Your task to perform on an android device: Open the calendar and show me this week's events? Image 0: 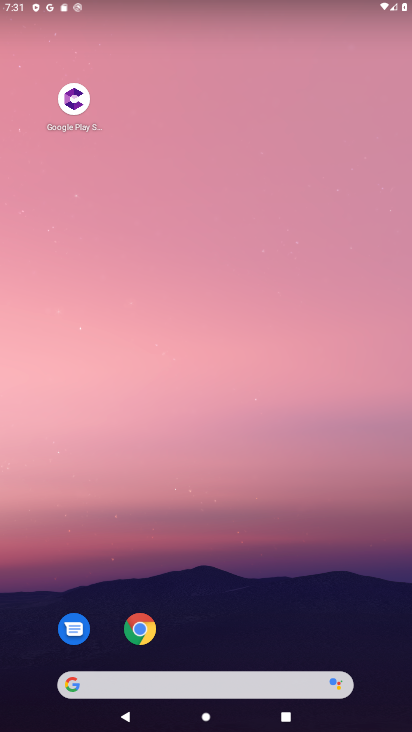
Step 0: drag from (275, 658) to (290, 2)
Your task to perform on an android device: Open the calendar and show me this week's events? Image 1: 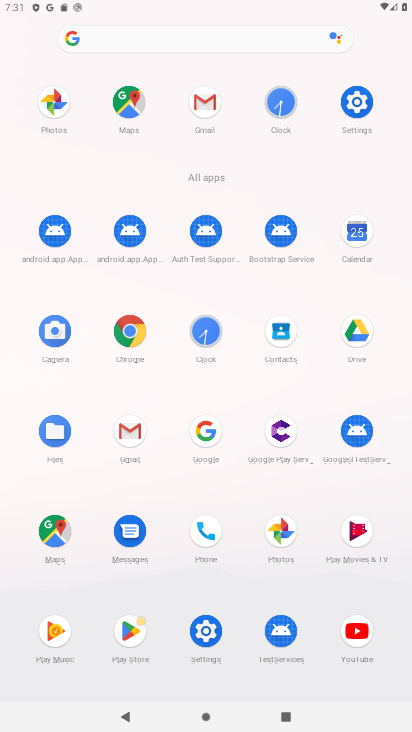
Step 1: click (352, 259)
Your task to perform on an android device: Open the calendar and show me this week's events? Image 2: 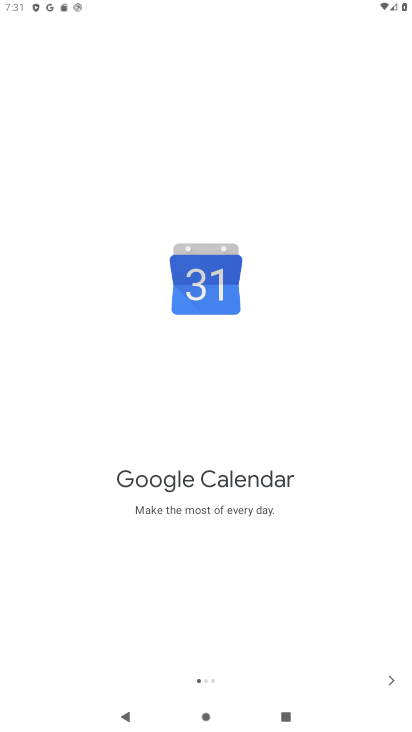
Step 2: click (390, 678)
Your task to perform on an android device: Open the calendar and show me this week's events? Image 3: 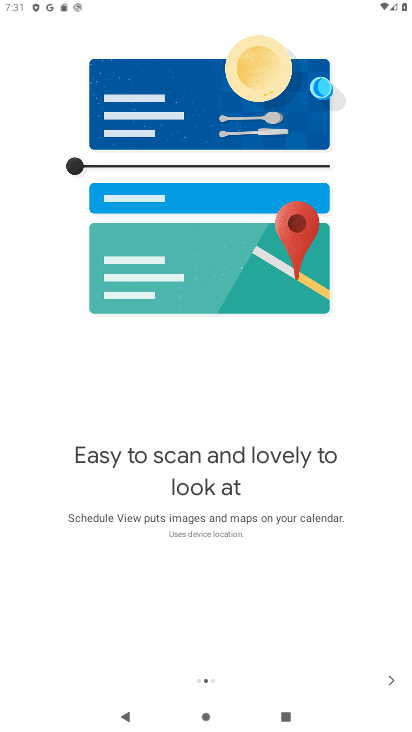
Step 3: click (390, 678)
Your task to perform on an android device: Open the calendar and show me this week's events? Image 4: 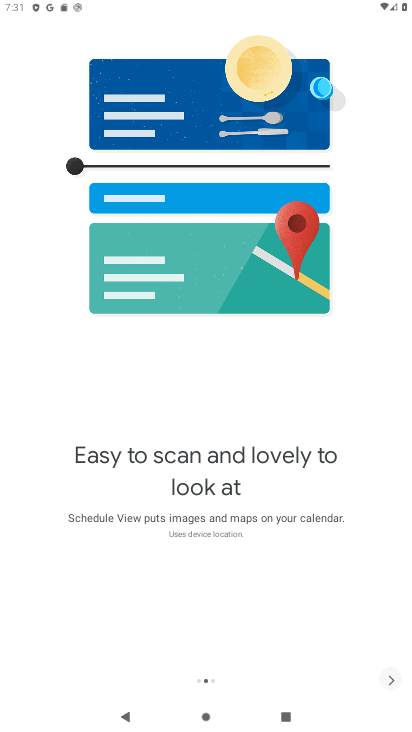
Step 4: click (390, 678)
Your task to perform on an android device: Open the calendar and show me this week's events? Image 5: 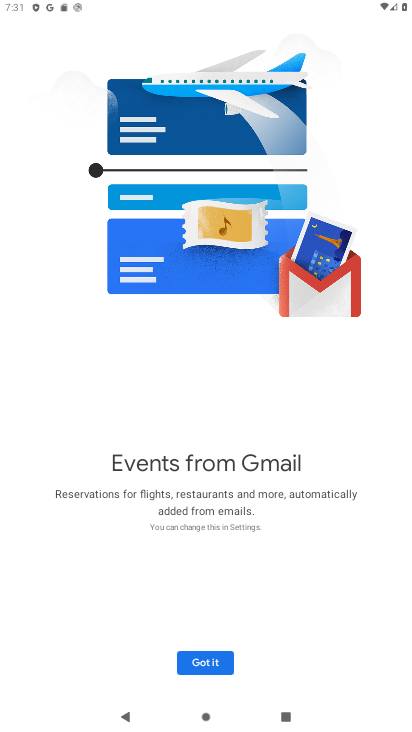
Step 5: click (212, 663)
Your task to perform on an android device: Open the calendar and show me this week's events? Image 6: 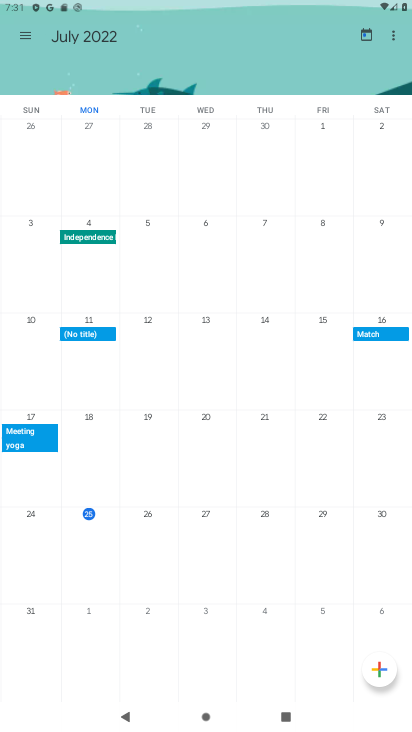
Step 6: task complete